Your task to perform on an android device: What is the news today? Image 0: 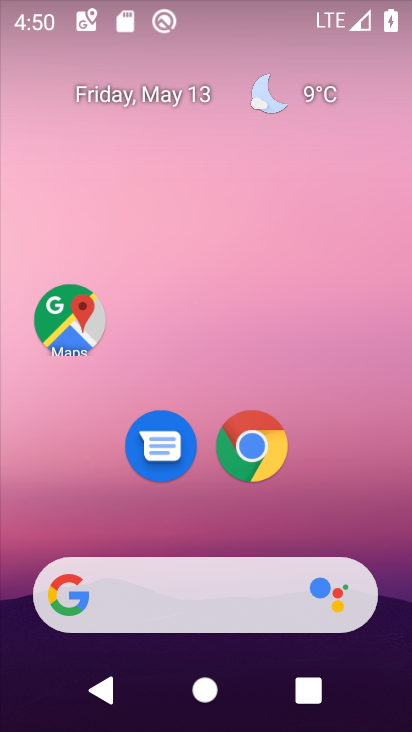
Step 0: click (169, 586)
Your task to perform on an android device: What is the news today? Image 1: 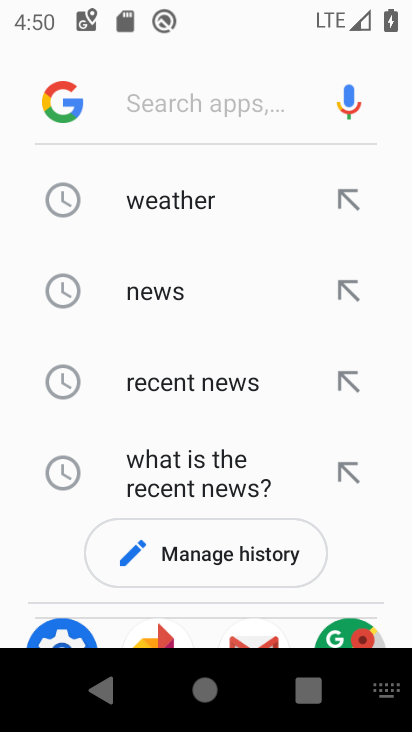
Step 1: type "what is the news today"
Your task to perform on an android device: What is the news today? Image 2: 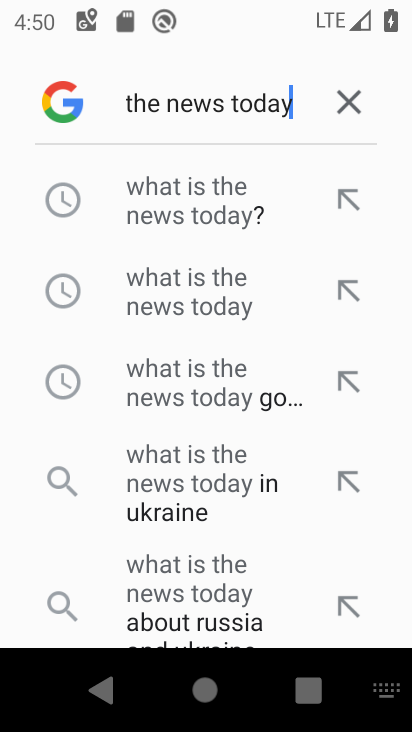
Step 2: click (244, 216)
Your task to perform on an android device: What is the news today? Image 3: 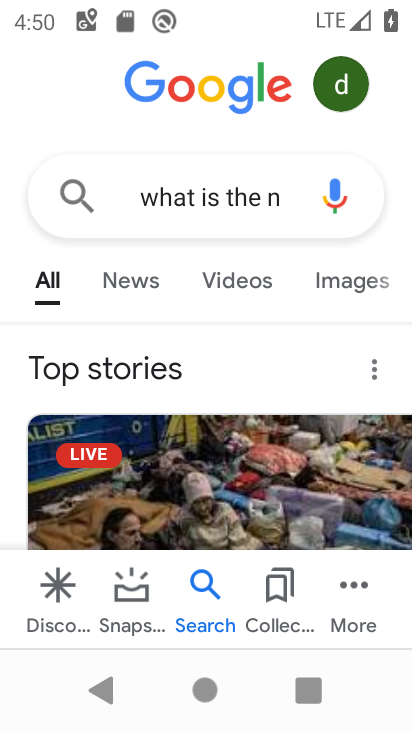
Step 3: click (150, 295)
Your task to perform on an android device: What is the news today? Image 4: 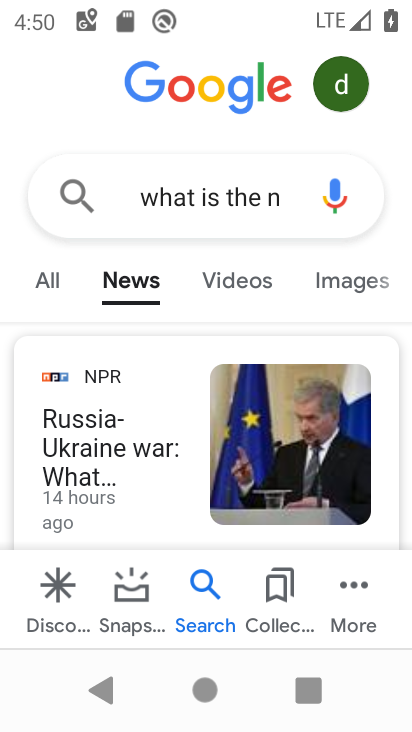
Step 4: task complete